Your task to perform on an android device: set an alarm Image 0: 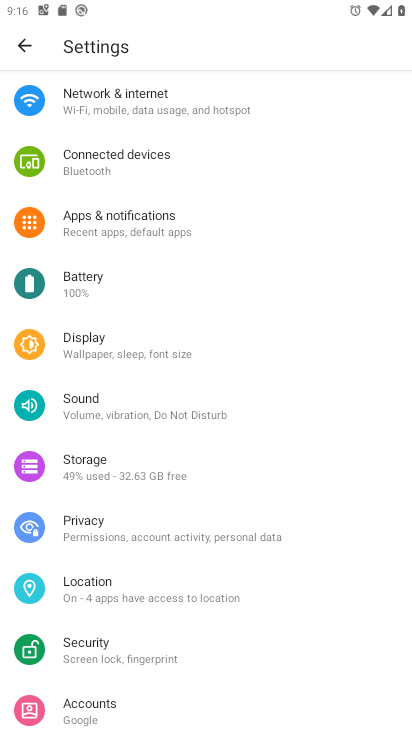
Step 0: press home button
Your task to perform on an android device: set an alarm Image 1: 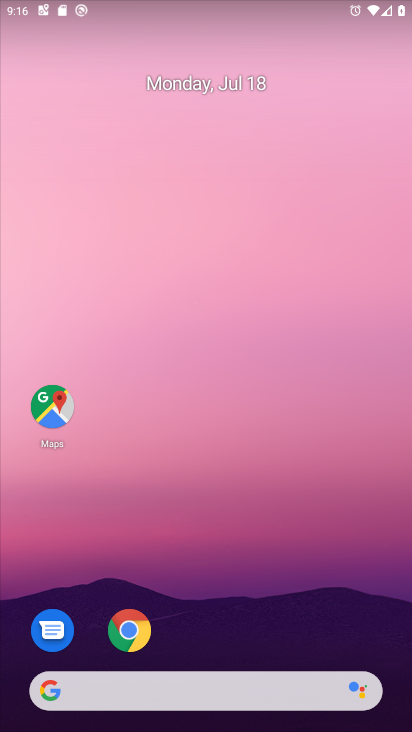
Step 1: drag from (232, 546) to (232, 199)
Your task to perform on an android device: set an alarm Image 2: 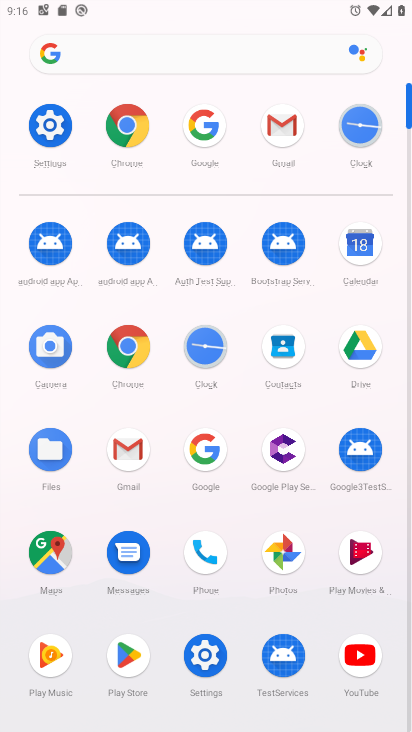
Step 2: click (357, 112)
Your task to perform on an android device: set an alarm Image 3: 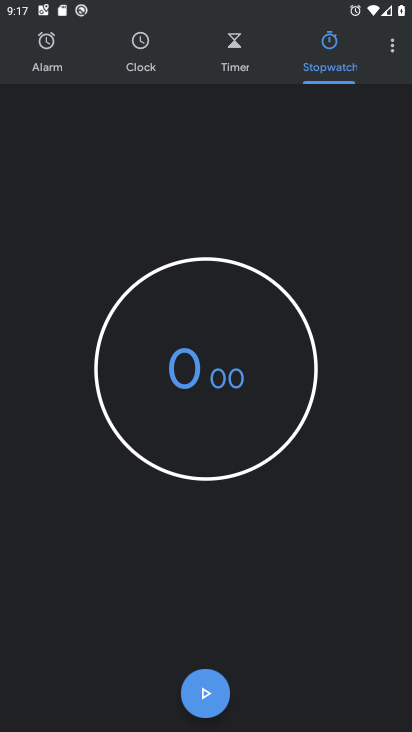
Step 3: click (55, 51)
Your task to perform on an android device: set an alarm Image 4: 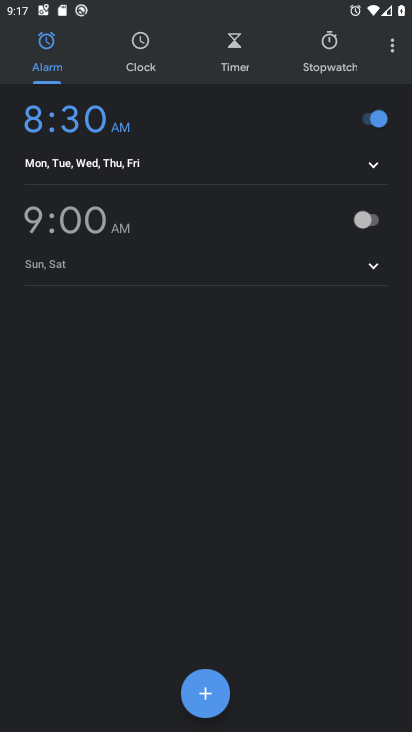
Step 4: click (377, 214)
Your task to perform on an android device: set an alarm Image 5: 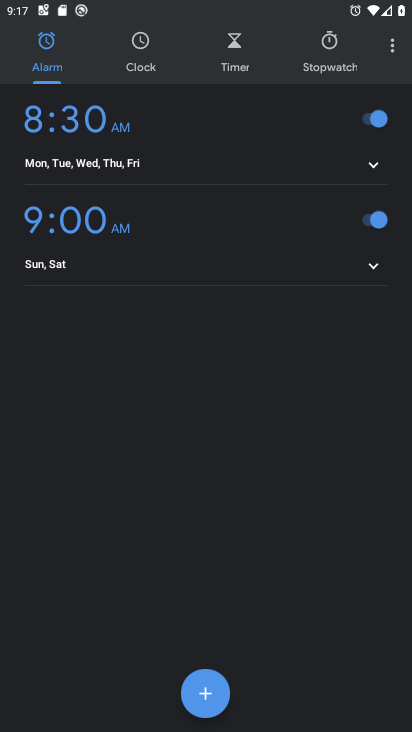
Step 5: task complete